Your task to perform on an android device: Turn on the flashlight Image 0: 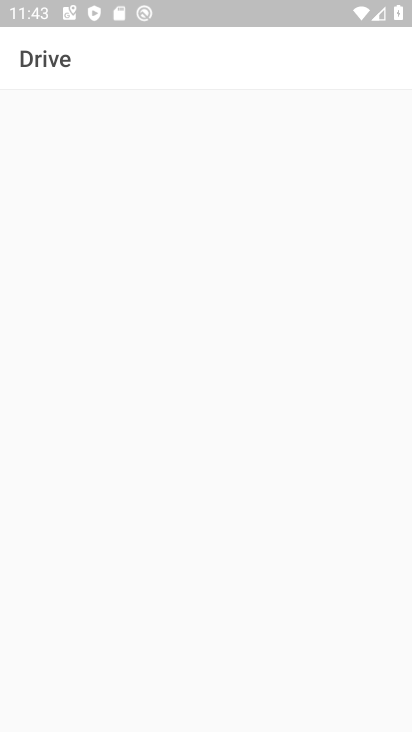
Step 0: press home button
Your task to perform on an android device: Turn on the flashlight Image 1: 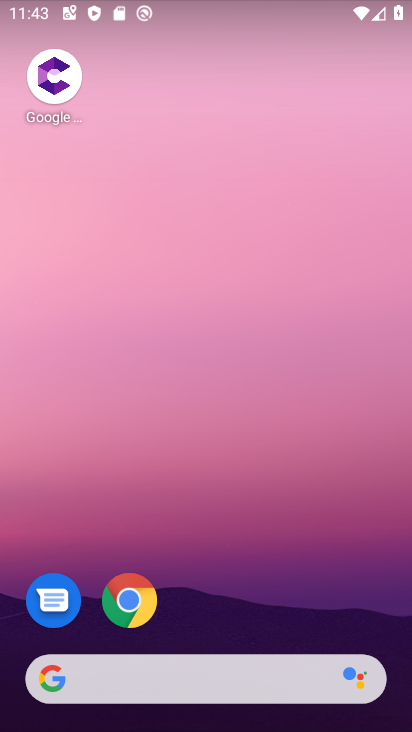
Step 1: drag from (161, 594) to (184, 282)
Your task to perform on an android device: Turn on the flashlight Image 2: 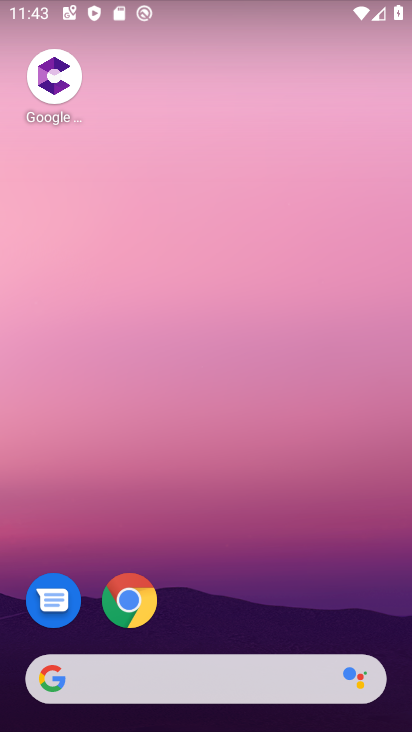
Step 2: drag from (168, 490) to (139, 56)
Your task to perform on an android device: Turn on the flashlight Image 3: 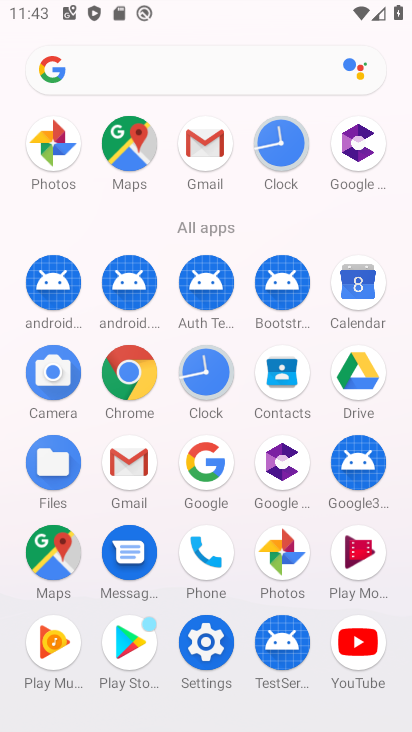
Step 3: click (210, 637)
Your task to perform on an android device: Turn on the flashlight Image 4: 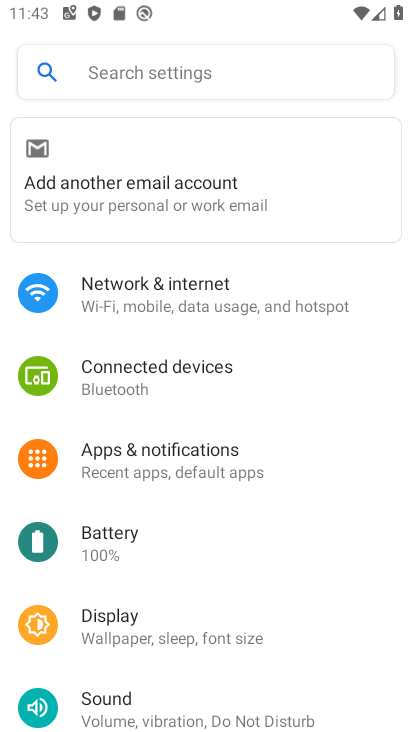
Step 4: drag from (202, 532) to (197, 271)
Your task to perform on an android device: Turn on the flashlight Image 5: 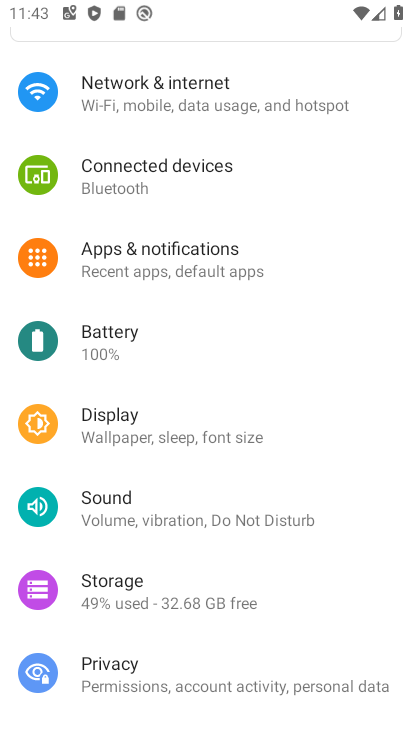
Step 5: click (139, 433)
Your task to perform on an android device: Turn on the flashlight Image 6: 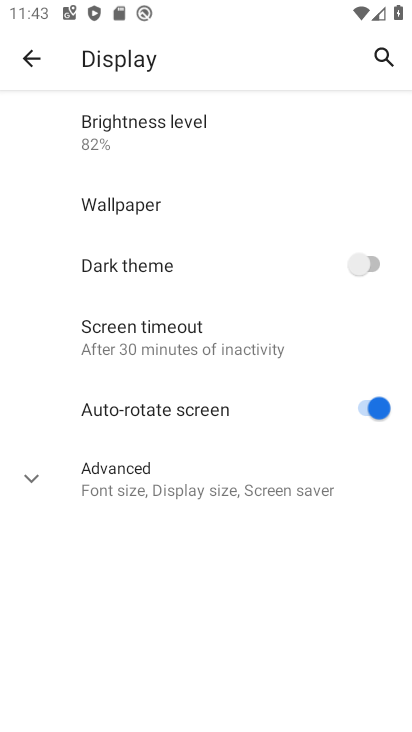
Step 6: task complete